Your task to perform on an android device: Open privacy settings Image 0: 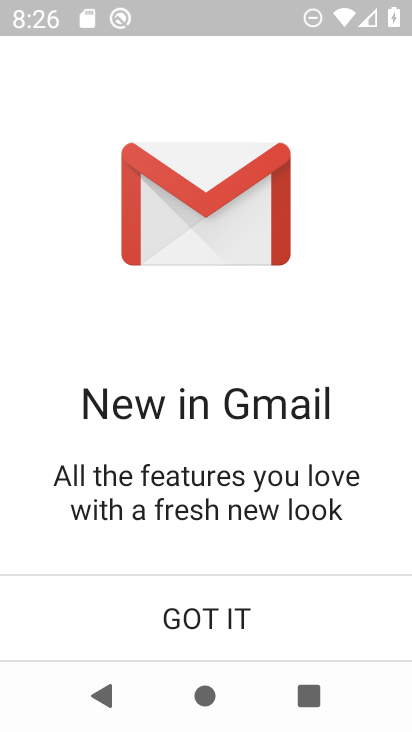
Step 0: press home button
Your task to perform on an android device: Open privacy settings Image 1: 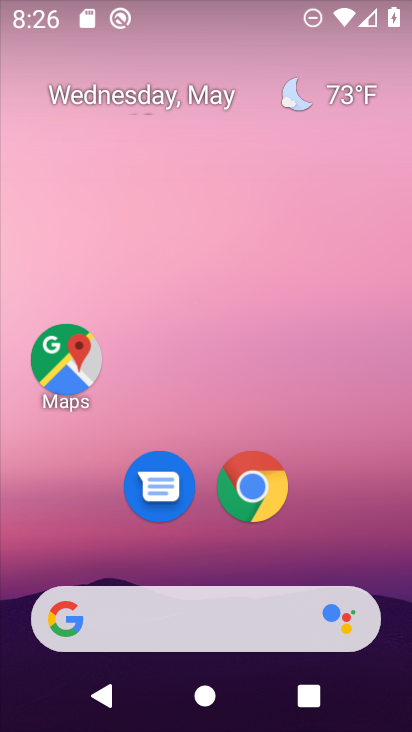
Step 1: drag from (398, 624) to (351, 170)
Your task to perform on an android device: Open privacy settings Image 2: 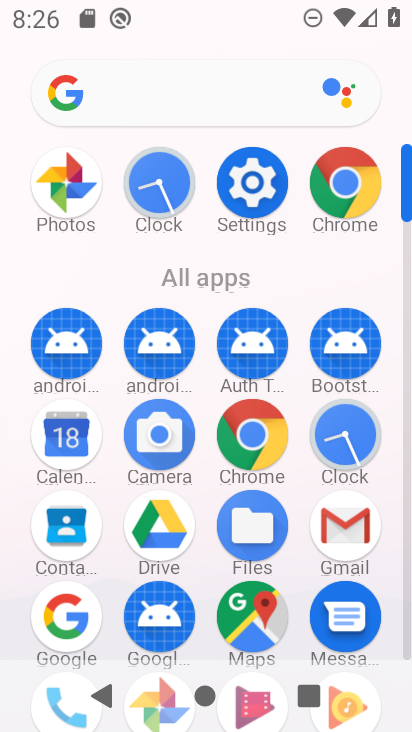
Step 2: click (407, 630)
Your task to perform on an android device: Open privacy settings Image 3: 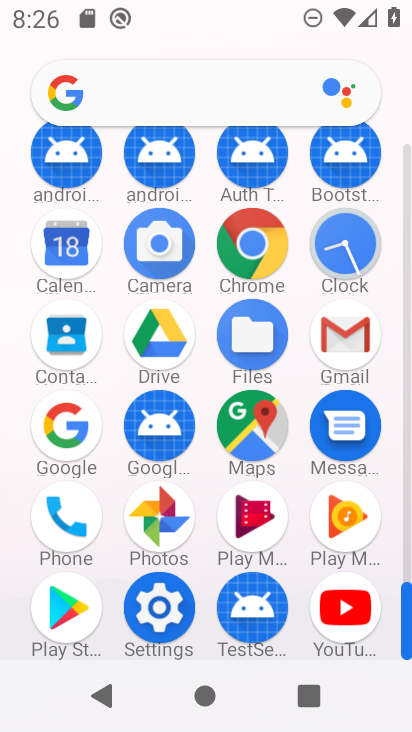
Step 3: click (153, 612)
Your task to perform on an android device: Open privacy settings Image 4: 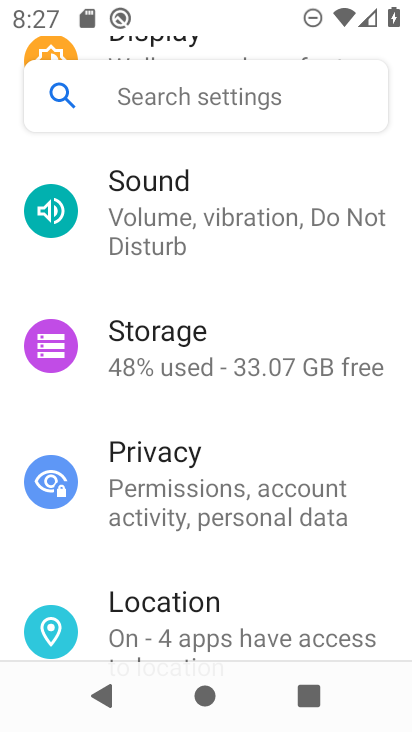
Step 4: click (175, 476)
Your task to perform on an android device: Open privacy settings Image 5: 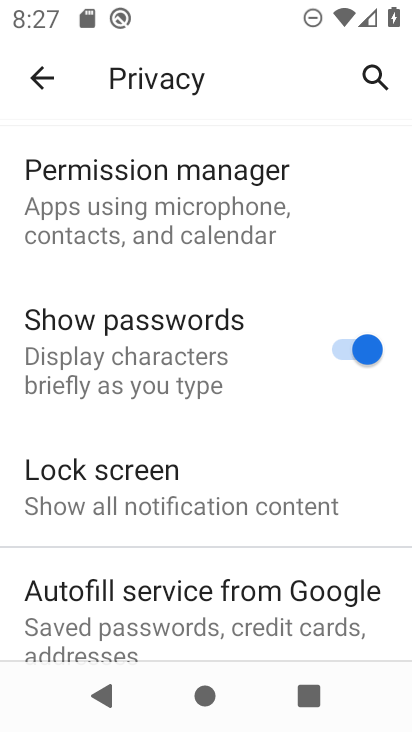
Step 5: drag from (240, 604) to (225, 257)
Your task to perform on an android device: Open privacy settings Image 6: 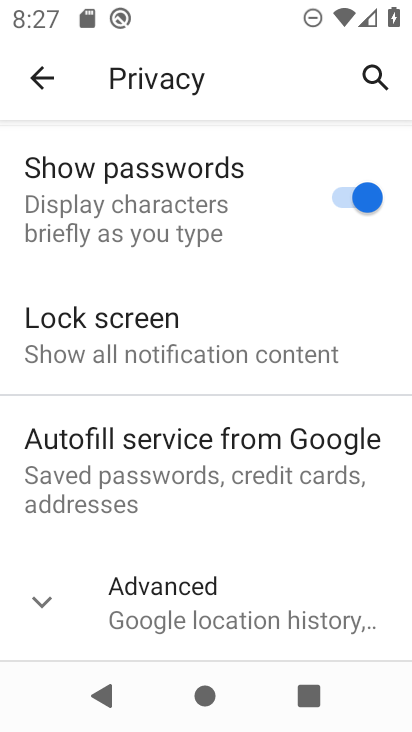
Step 6: click (47, 600)
Your task to perform on an android device: Open privacy settings Image 7: 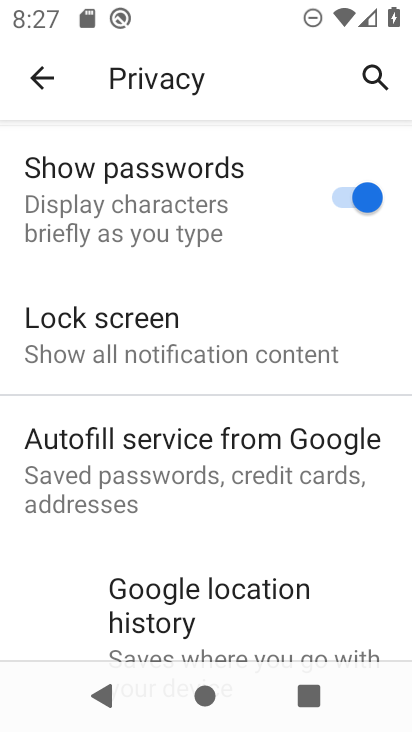
Step 7: task complete